Your task to perform on an android device: manage bookmarks in the chrome app Image 0: 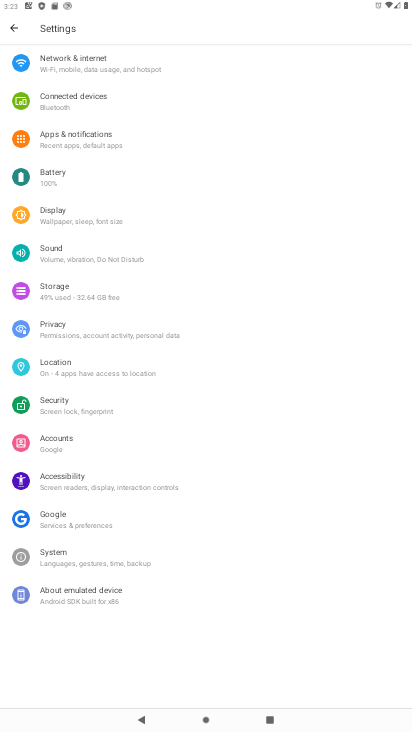
Step 0: press home button
Your task to perform on an android device: manage bookmarks in the chrome app Image 1: 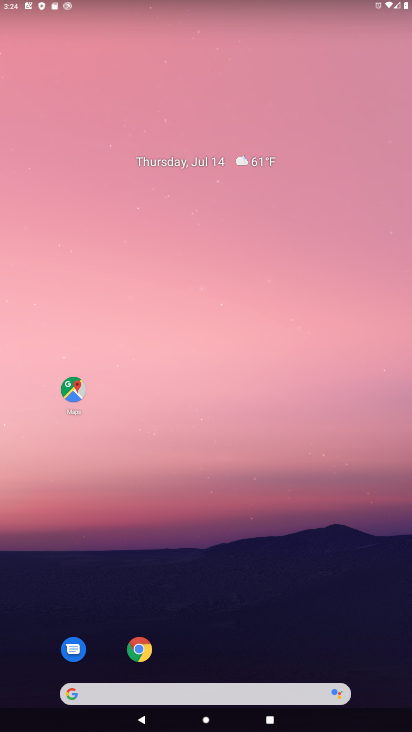
Step 1: click (126, 641)
Your task to perform on an android device: manage bookmarks in the chrome app Image 2: 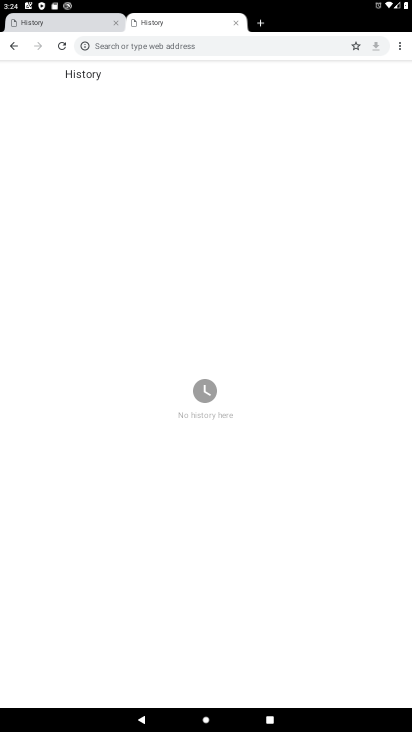
Step 2: drag from (400, 46) to (299, 95)
Your task to perform on an android device: manage bookmarks in the chrome app Image 3: 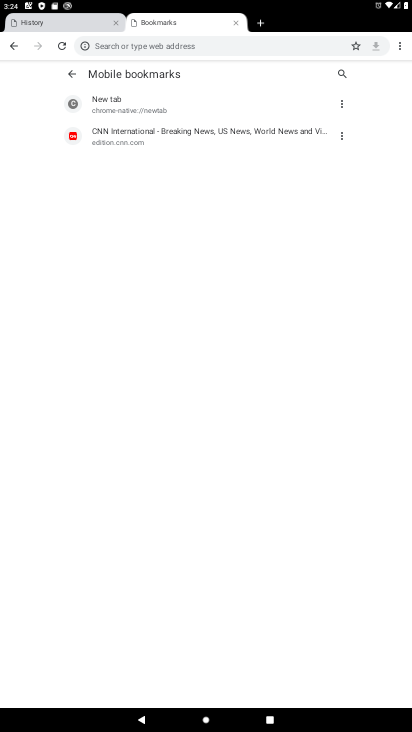
Step 3: drag from (142, 204) to (143, 372)
Your task to perform on an android device: manage bookmarks in the chrome app Image 4: 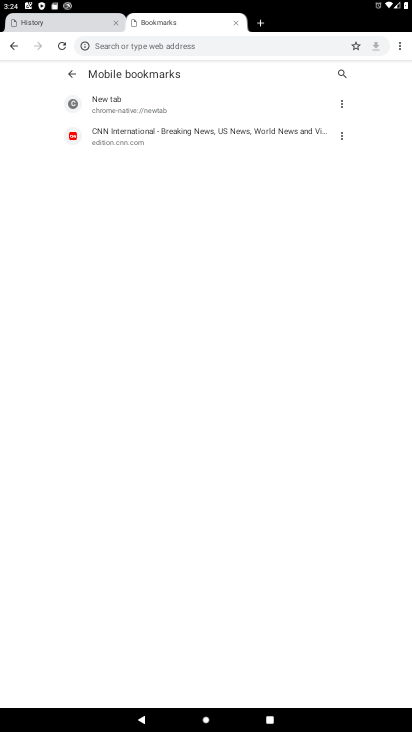
Step 4: click (336, 104)
Your task to perform on an android device: manage bookmarks in the chrome app Image 5: 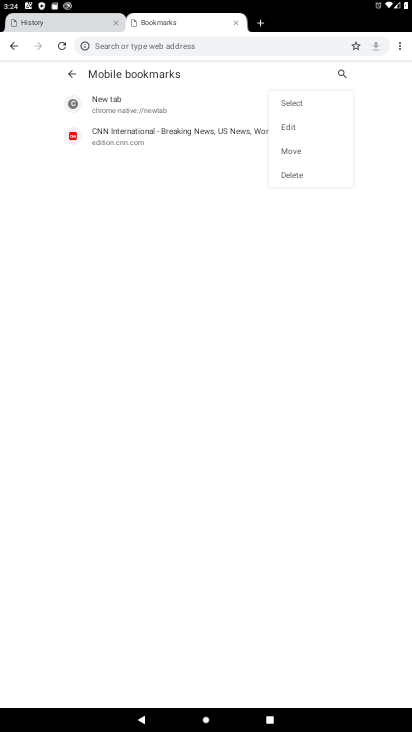
Step 5: click (295, 128)
Your task to perform on an android device: manage bookmarks in the chrome app Image 6: 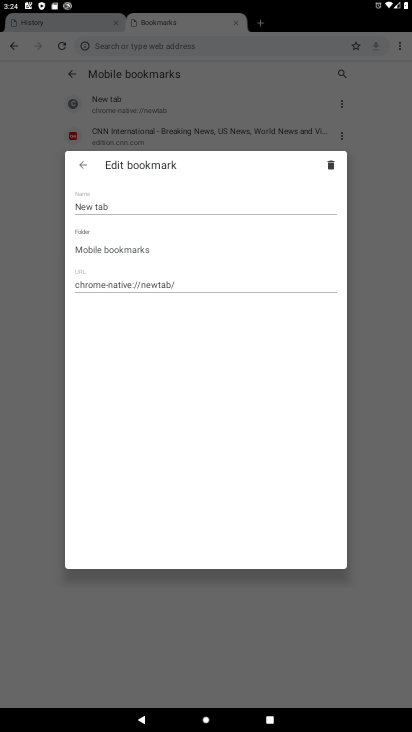
Step 6: task complete